Your task to perform on an android device: see tabs open on other devices in the chrome app Image 0: 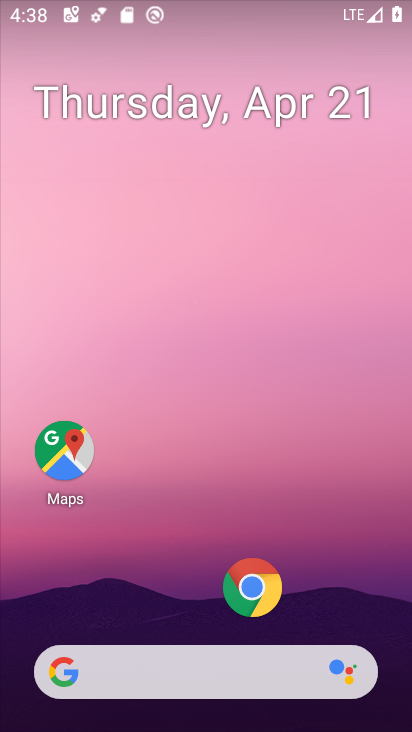
Step 0: click (262, 592)
Your task to perform on an android device: see tabs open on other devices in the chrome app Image 1: 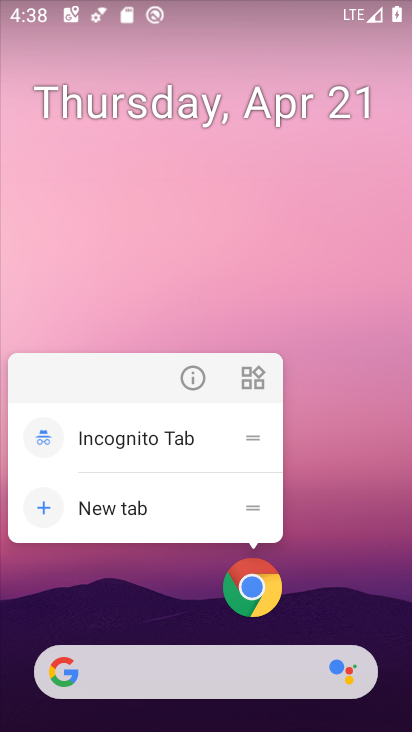
Step 1: click (251, 581)
Your task to perform on an android device: see tabs open on other devices in the chrome app Image 2: 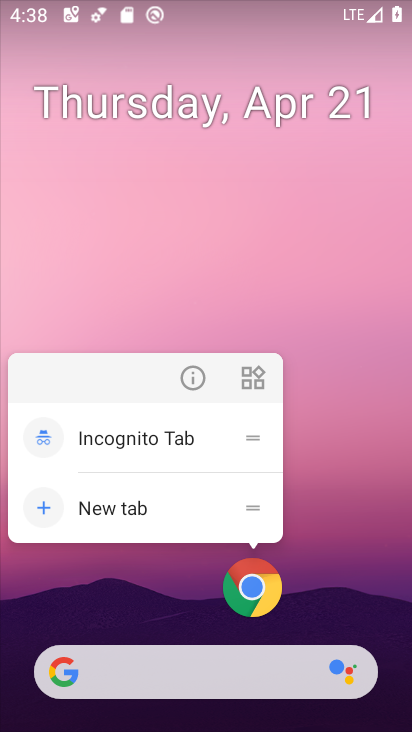
Step 2: click (251, 581)
Your task to perform on an android device: see tabs open on other devices in the chrome app Image 3: 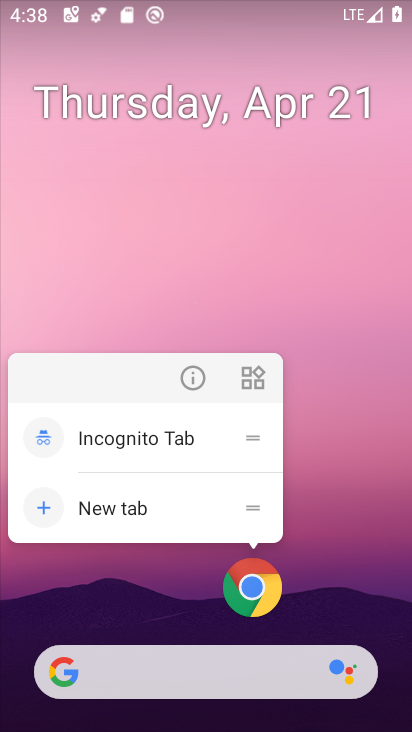
Step 3: click (266, 595)
Your task to perform on an android device: see tabs open on other devices in the chrome app Image 4: 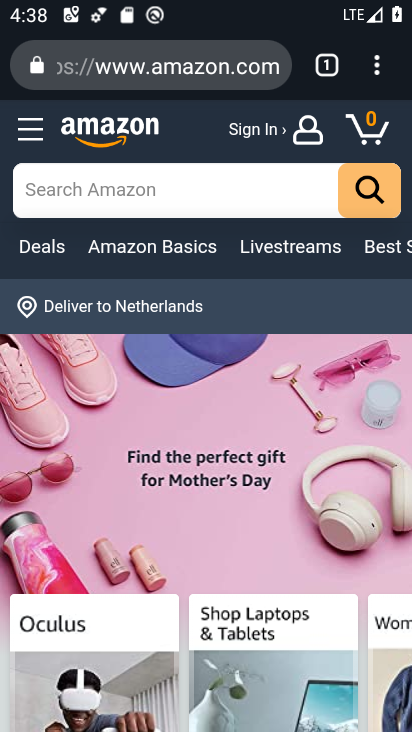
Step 4: click (328, 74)
Your task to perform on an android device: see tabs open on other devices in the chrome app Image 5: 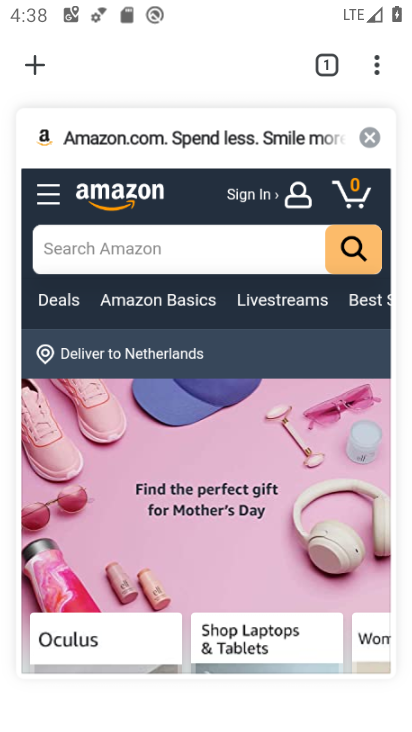
Step 5: task complete